Your task to perform on an android device: turn on the 24-hour format for clock Image 0: 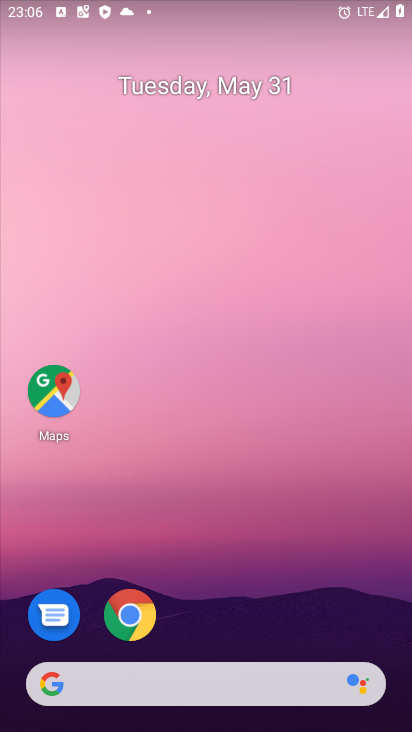
Step 0: drag from (375, 623) to (347, 23)
Your task to perform on an android device: turn on the 24-hour format for clock Image 1: 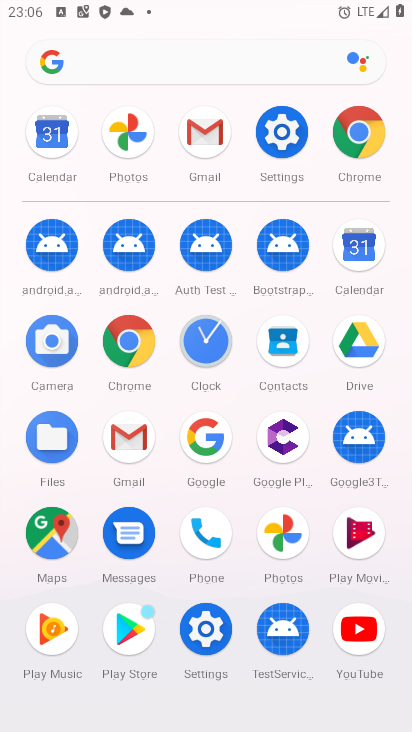
Step 1: click (205, 340)
Your task to perform on an android device: turn on the 24-hour format for clock Image 2: 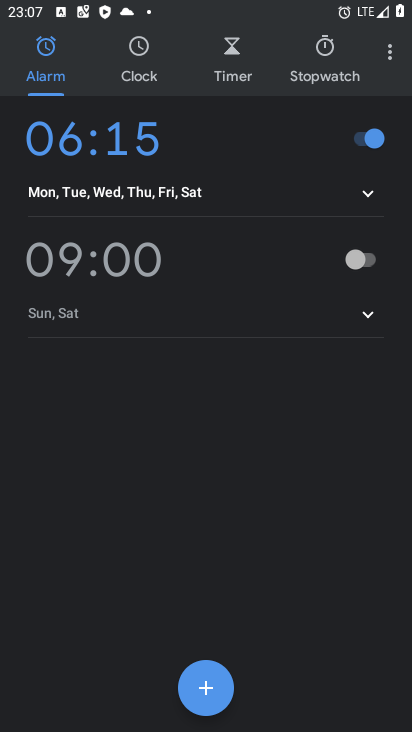
Step 2: click (391, 54)
Your task to perform on an android device: turn on the 24-hour format for clock Image 3: 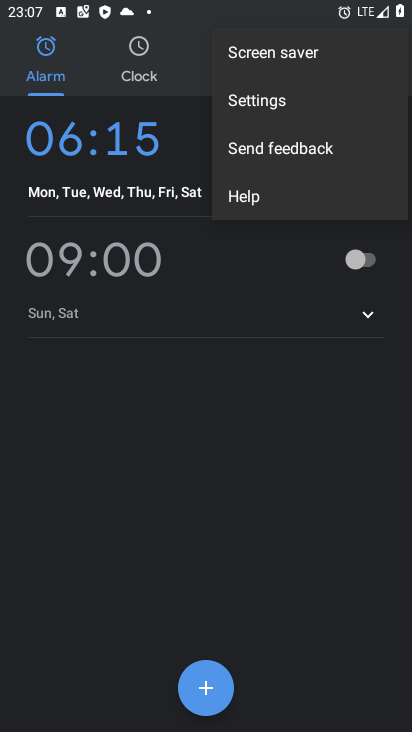
Step 3: click (262, 102)
Your task to perform on an android device: turn on the 24-hour format for clock Image 4: 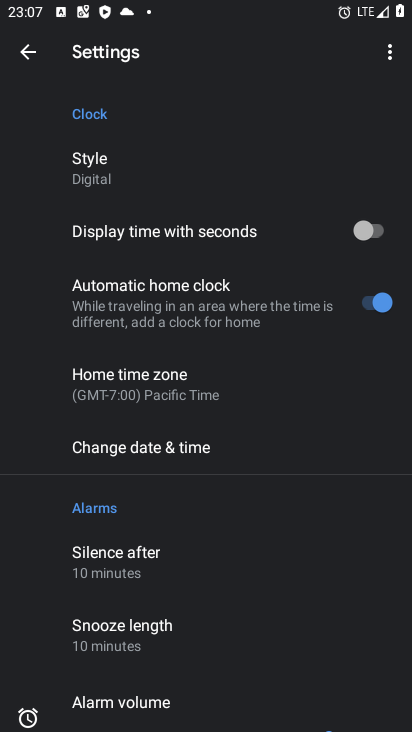
Step 4: click (174, 457)
Your task to perform on an android device: turn on the 24-hour format for clock Image 5: 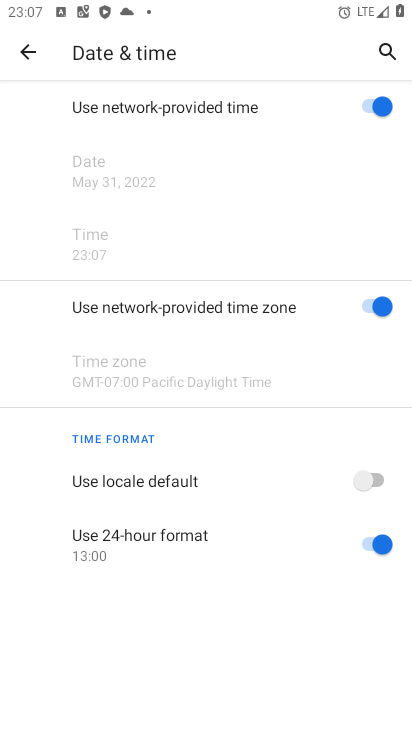
Step 5: task complete